Your task to perform on an android device: add a contact Image 0: 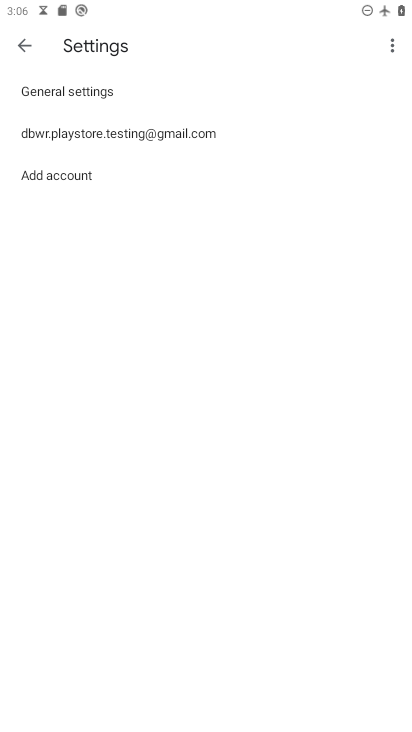
Step 0: press home button
Your task to perform on an android device: add a contact Image 1: 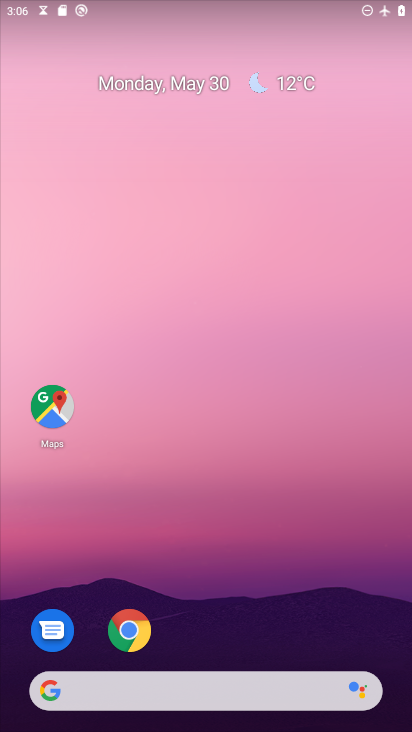
Step 1: drag from (203, 697) to (260, 54)
Your task to perform on an android device: add a contact Image 2: 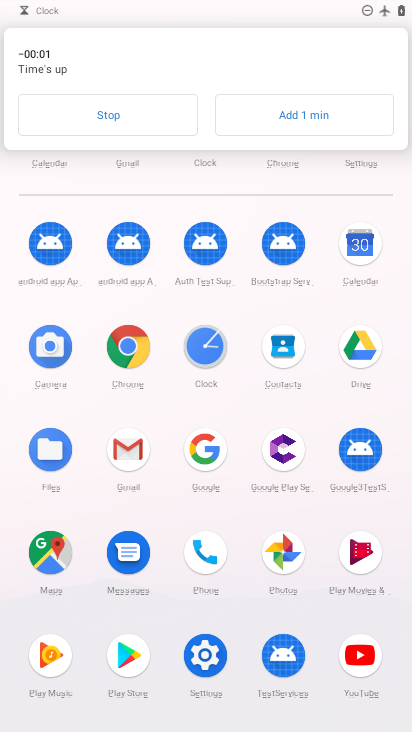
Step 2: click (282, 351)
Your task to perform on an android device: add a contact Image 3: 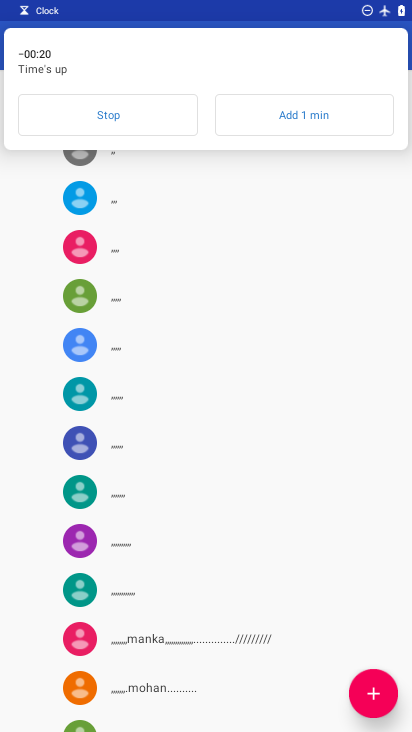
Step 3: click (381, 681)
Your task to perform on an android device: add a contact Image 4: 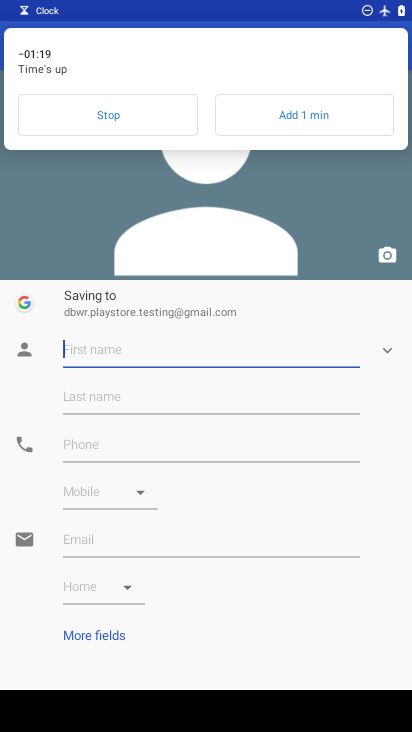
Step 4: type "vvcb"
Your task to perform on an android device: add a contact Image 5: 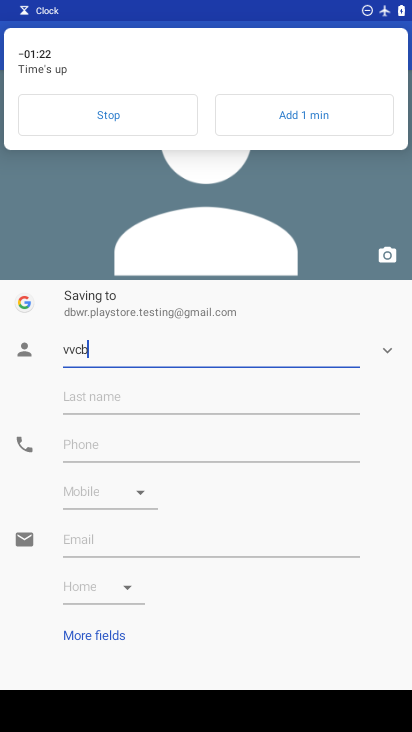
Step 5: click (161, 452)
Your task to perform on an android device: add a contact Image 6: 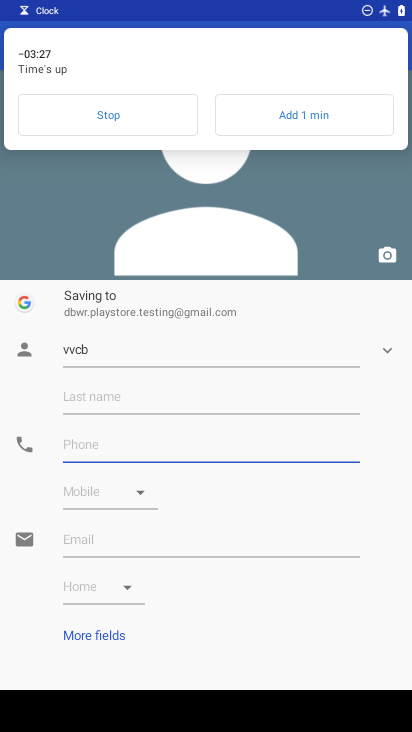
Step 6: type "67797"
Your task to perform on an android device: add a contact Image 7: 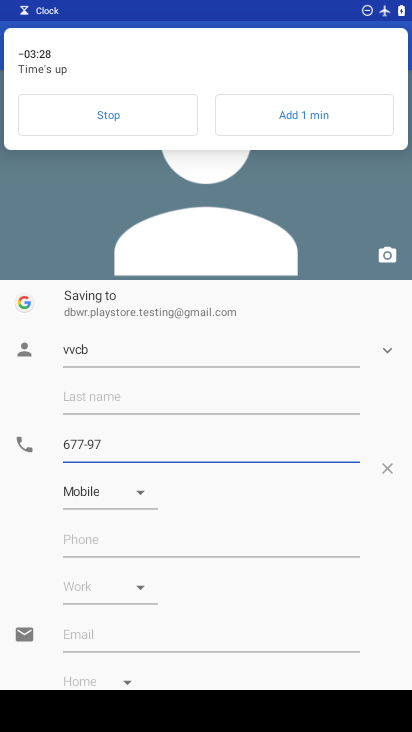
Step 7: click (117, 110)
Your task to perform on an android device: add a contact Image 8: 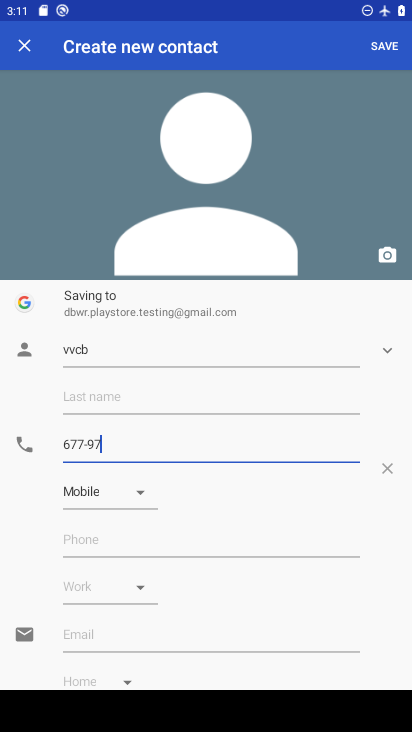
Step 8: click (386, 45)
Your task to perform on an android device: add a contact Image 9: 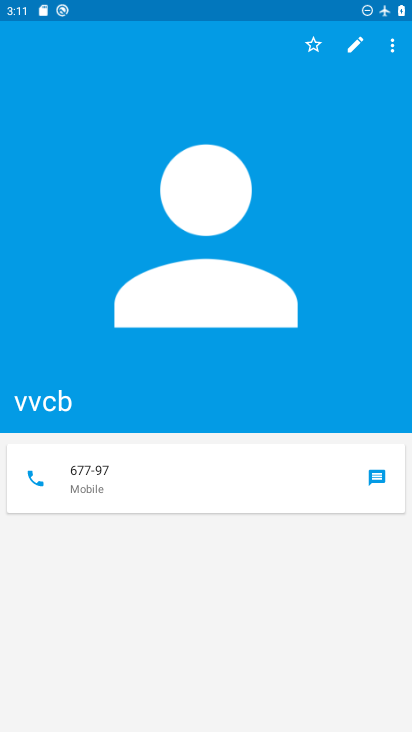
Step 9: task complete